Your task to perform on an android device: add a contact in the contacts app Image 0: 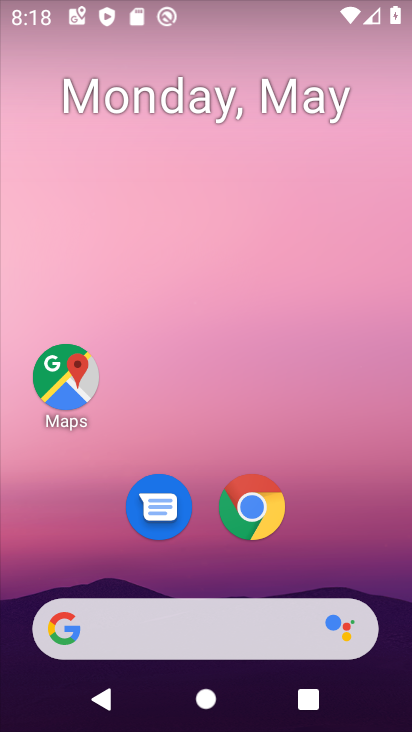
Step 0: drag from (198, 529) to (253, 6)
Your task to perform on an android device: add a contact in the contacts app Image 1: 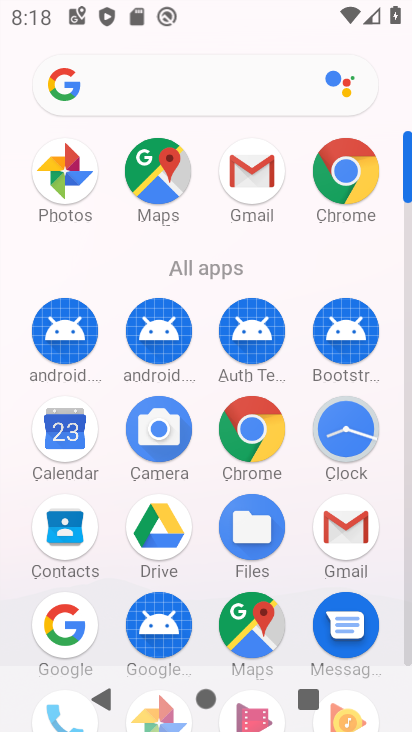
Step 1: click (72, 530)
Your task to perform on an android device: add a contact in the contacts app Image 2: 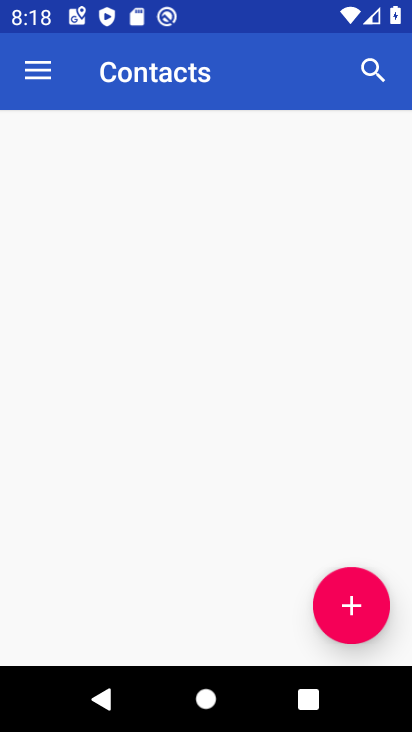
Step 2: click (349, 596)
Your task to perform on an android device: add a contact in the contacts app Image 3: 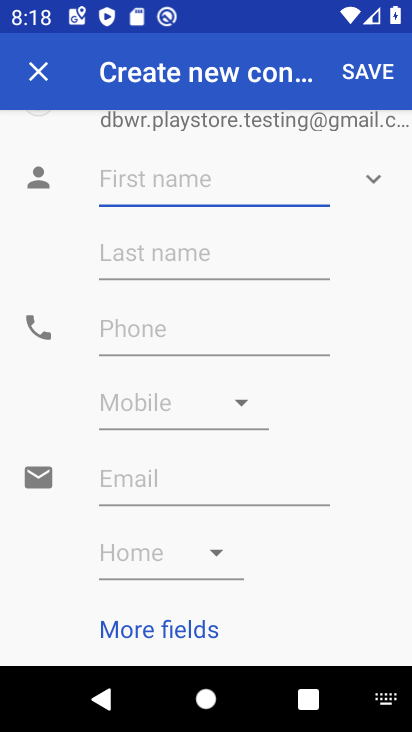
Step 3: type "b"
Your task to perform on an android device: add a contact in the contacts app Image 4: 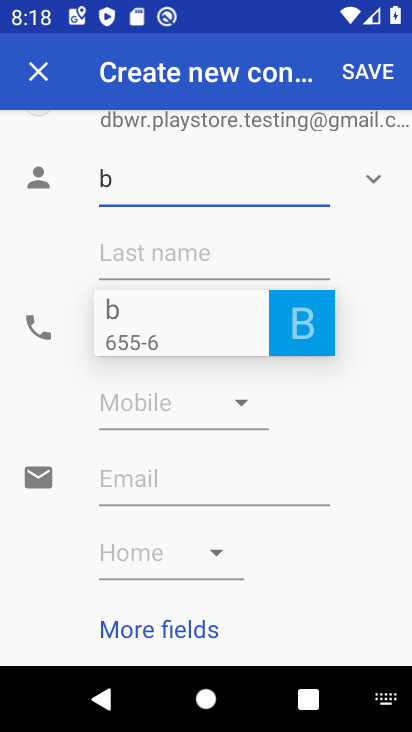
Step 4: click (176, 344)
Your task to perform on an android device: add a contact in the contacts app Image 5: 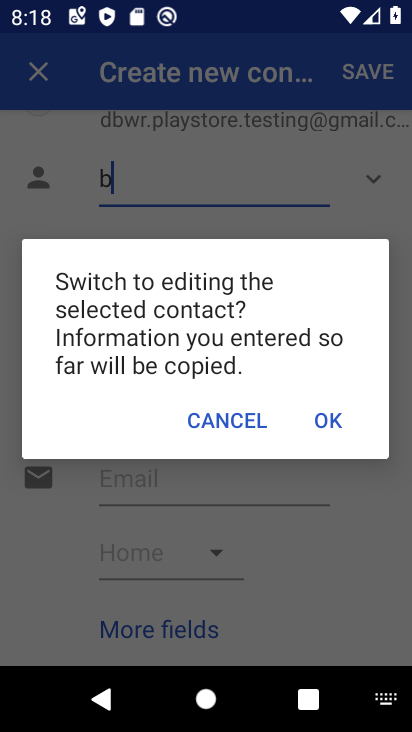
Step 5: click (247, 418)
Your task to perform on an android device: add a contact in the contacts app Image 6: 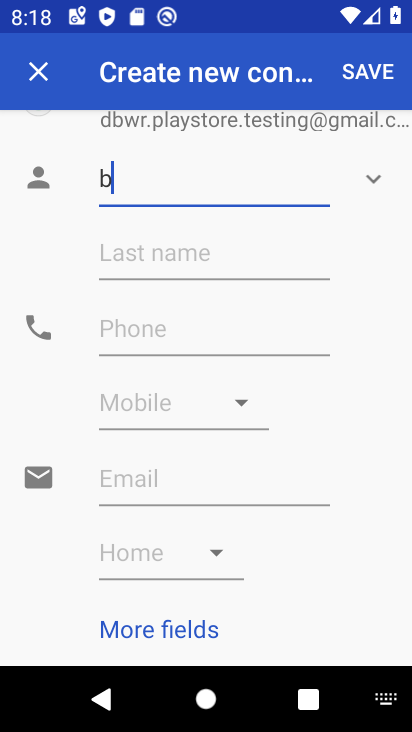
Step 6: type "njj"
Your task to perform on an android device: add a contact in the contacts app Image 7: 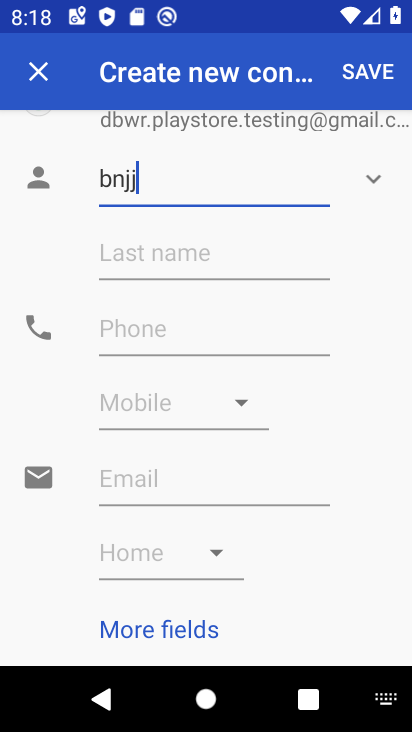
Step 7: click (126, 334)
Your task to perform on an android device: add a contact in the contacts app Image 8: 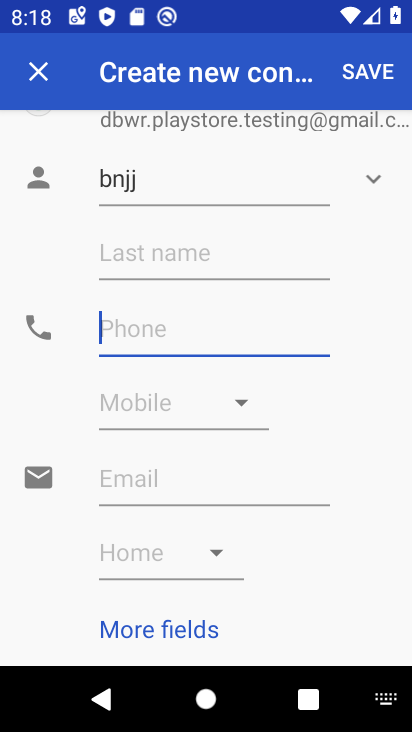
Step 8: type "123456"
Your task to perform on an android device: add a contact in the contacts app Image 9: 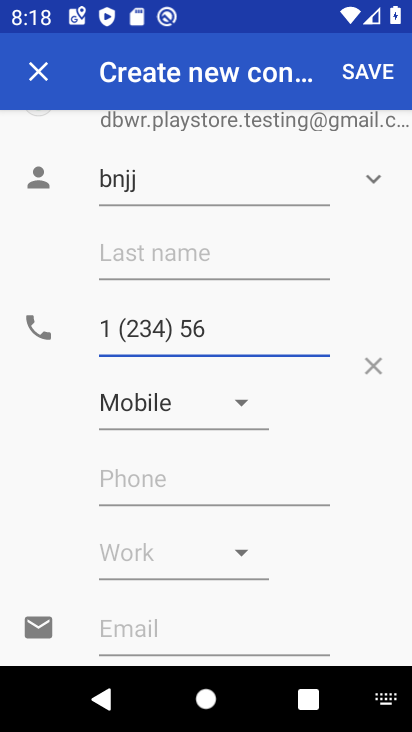
Step 9: click (356, 81)
Your task to perform on an android device: add a contact in the contacts app Image 10: 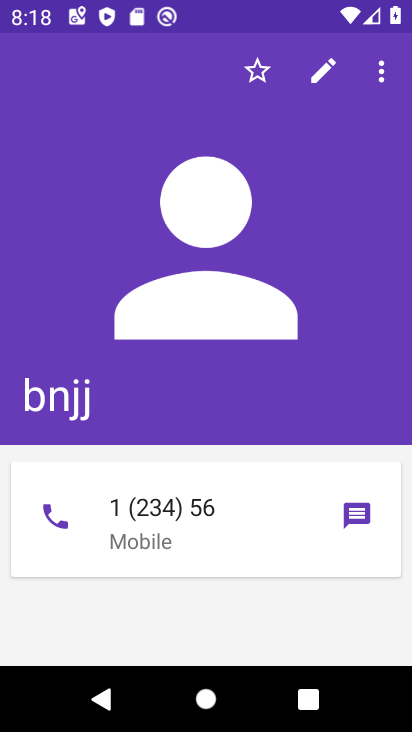
Step 10: task complete